Your task to perform on an android device: snooze an email in the gmail app Image 0: 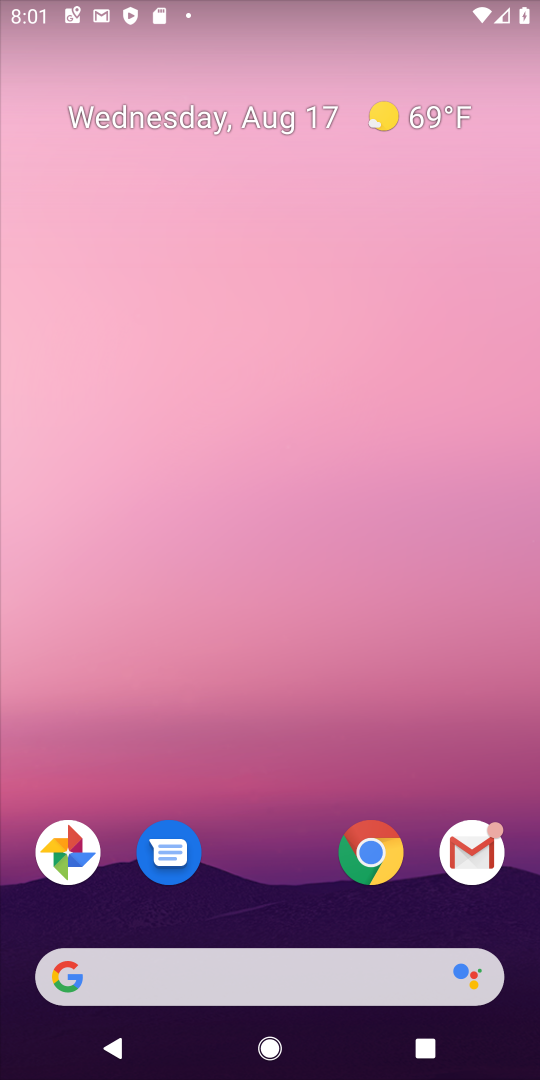
Step 0: click (472, 851)
Your task to perform on an android device: snooze an email in the gmail app Image 1: 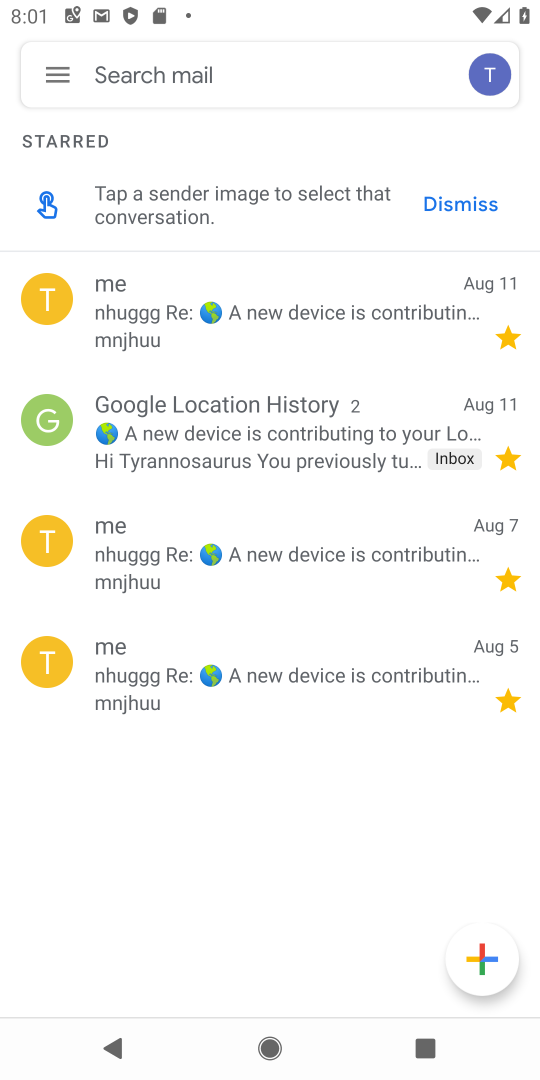
Step 1: click (167, 308)
Your task to perform on an android device: snooze an email in the gmail app Image 2: 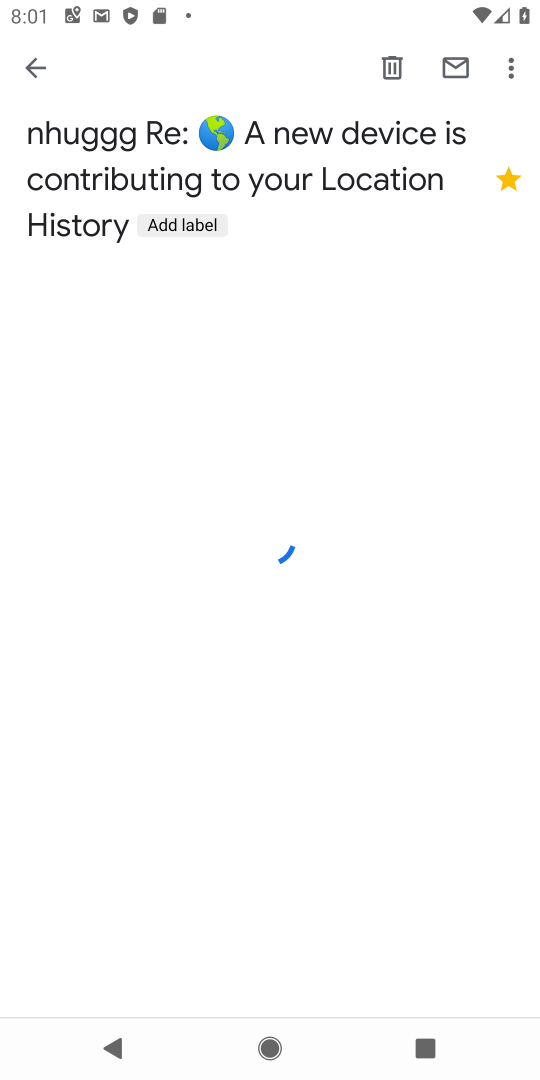
Step 2: click (508, 52)
Your task to perform on an android device: snooze an email in the gmail app Image 3: 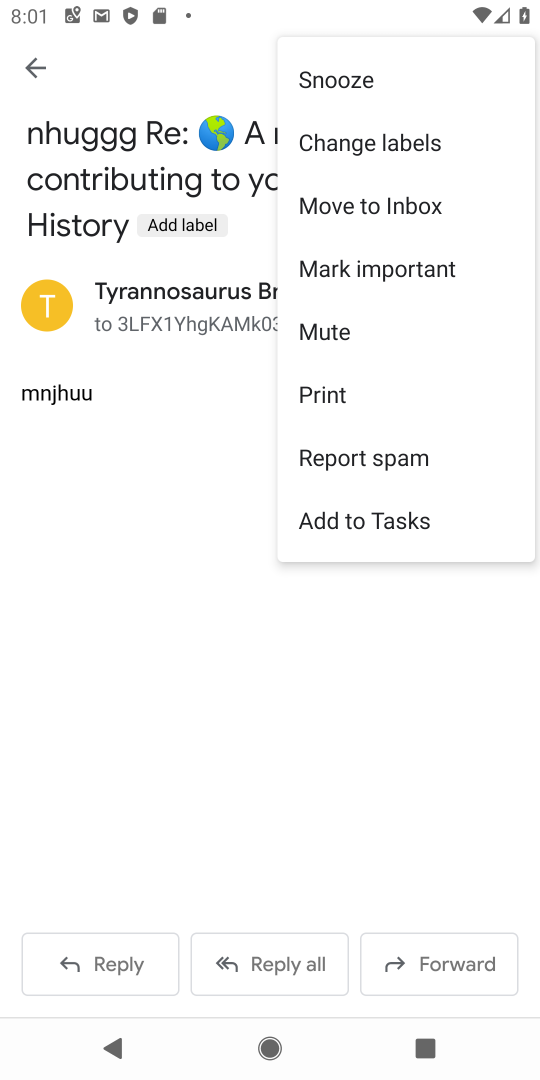
Step 3: click (356, 74)
Your task to perform on an android device: snooze an email in the gmail app Image 4: 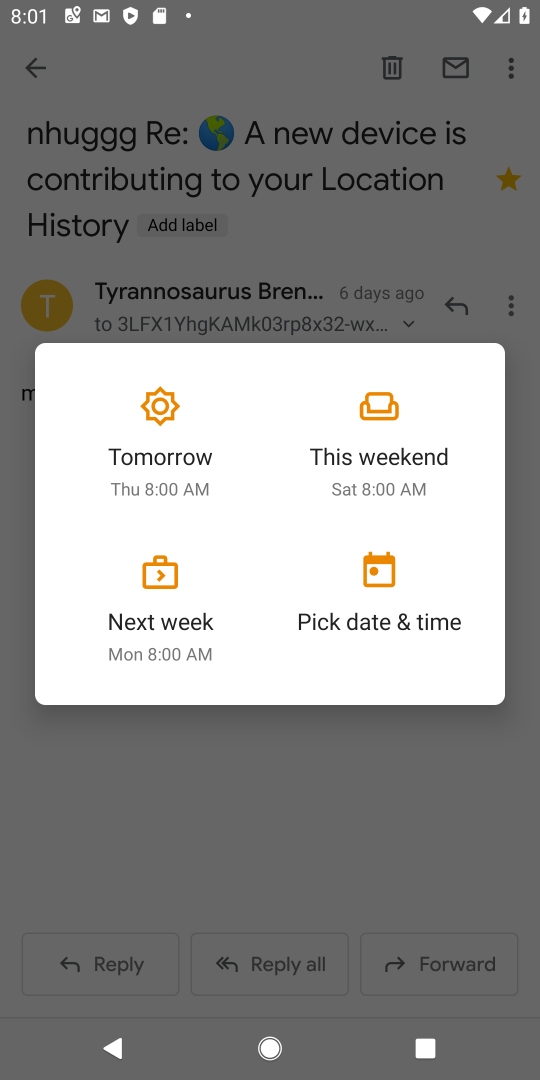
Step 4: click (162, 450)
Your task to perform on an android device: snooze an email in the gmail app Image 5: 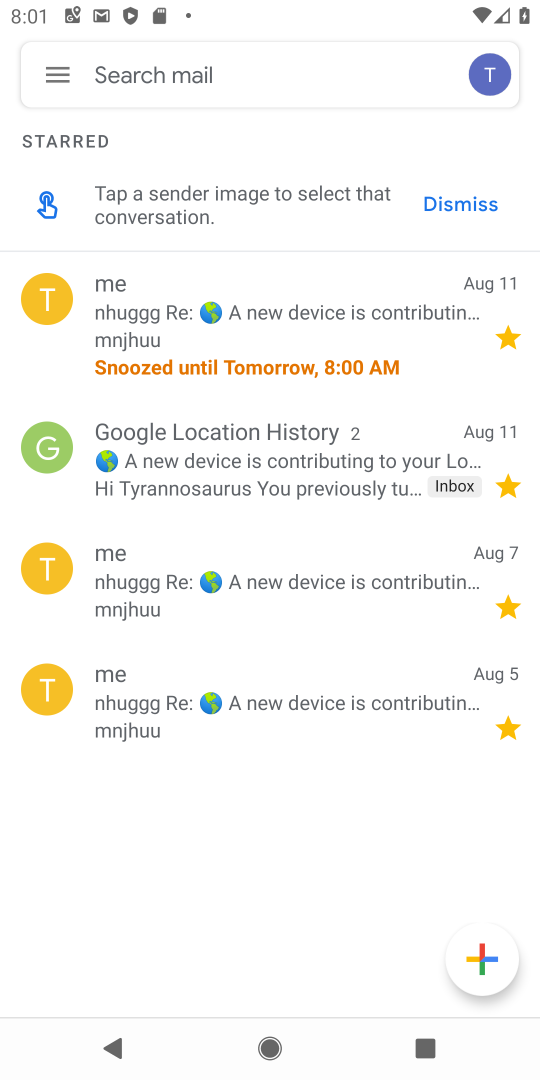
Step 5: task complete